Your task to perform on an android device: turn on wifi Image 0: 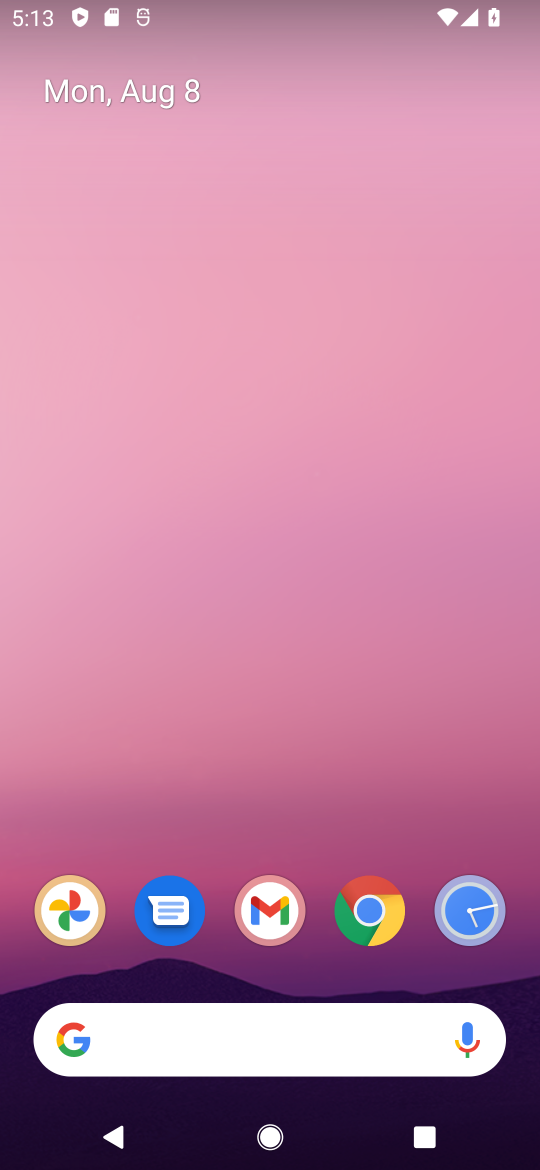
Step 0: drag from (230, 1049) to (307, 337)
Your task to perform on an android device: turn on wifi Image 1: 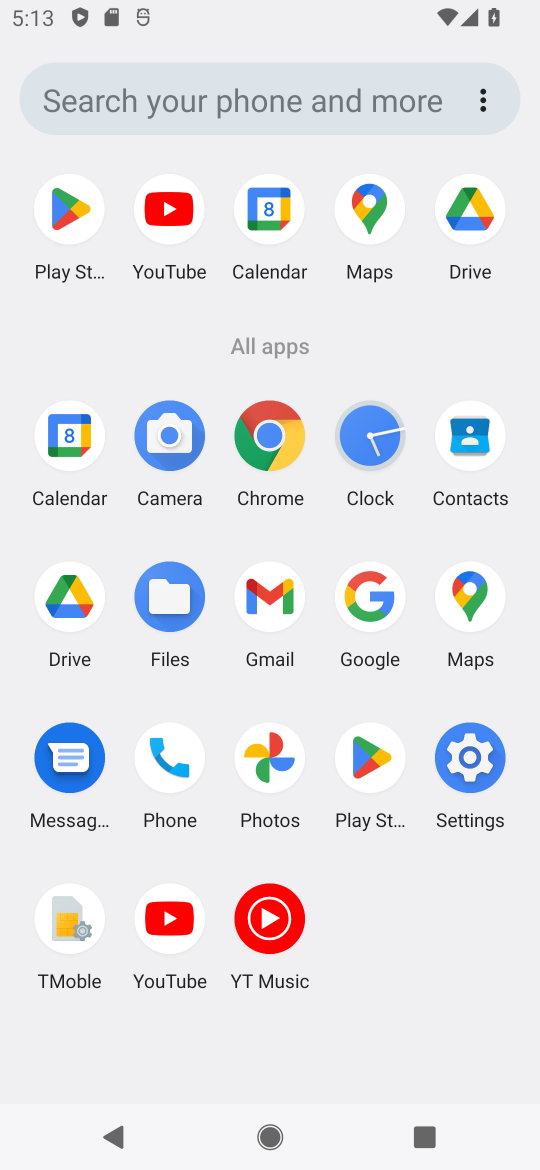
Step 1: click (467, 758)
Your task to perform on an android device: turn on wifi Image 2: 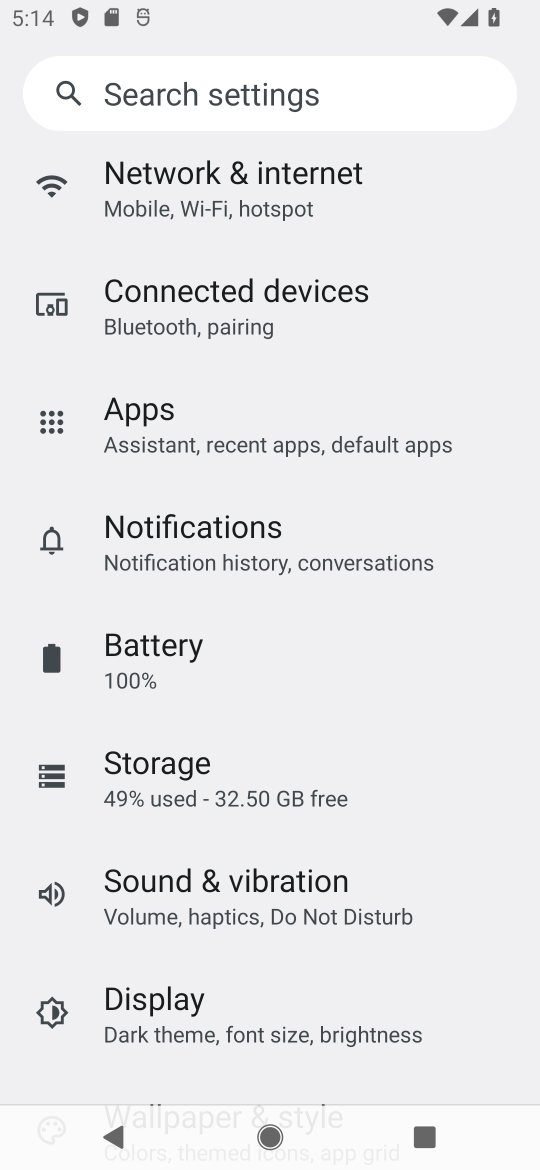
Step 2: click (207, 209)
Your task to perform on an android device: turn on wifi Image 3: 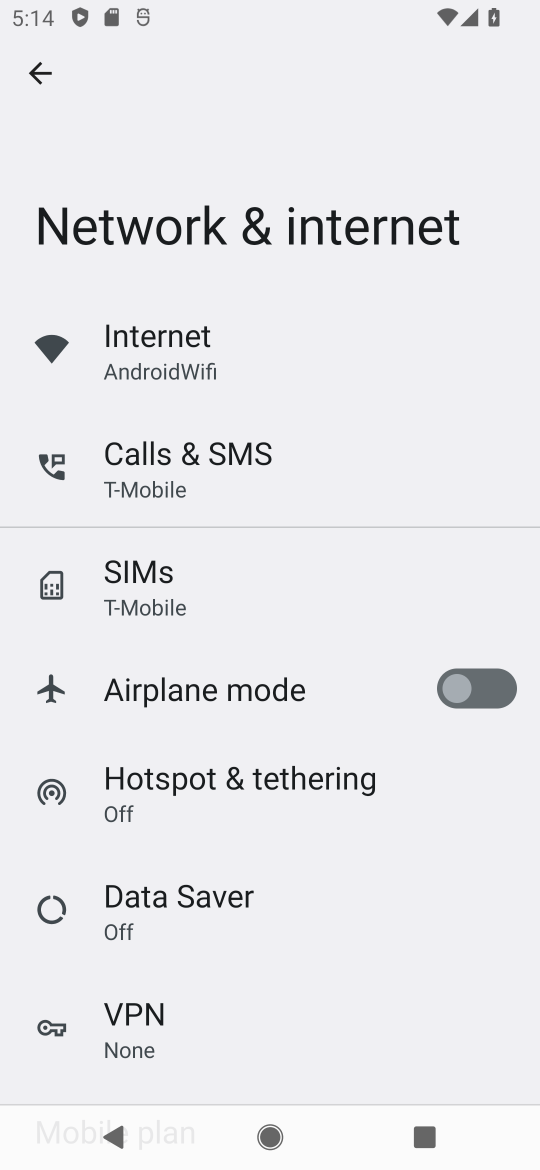
Step 3: click (184, 359)
Your task to perform on an android device: turn on wifi Image 4: 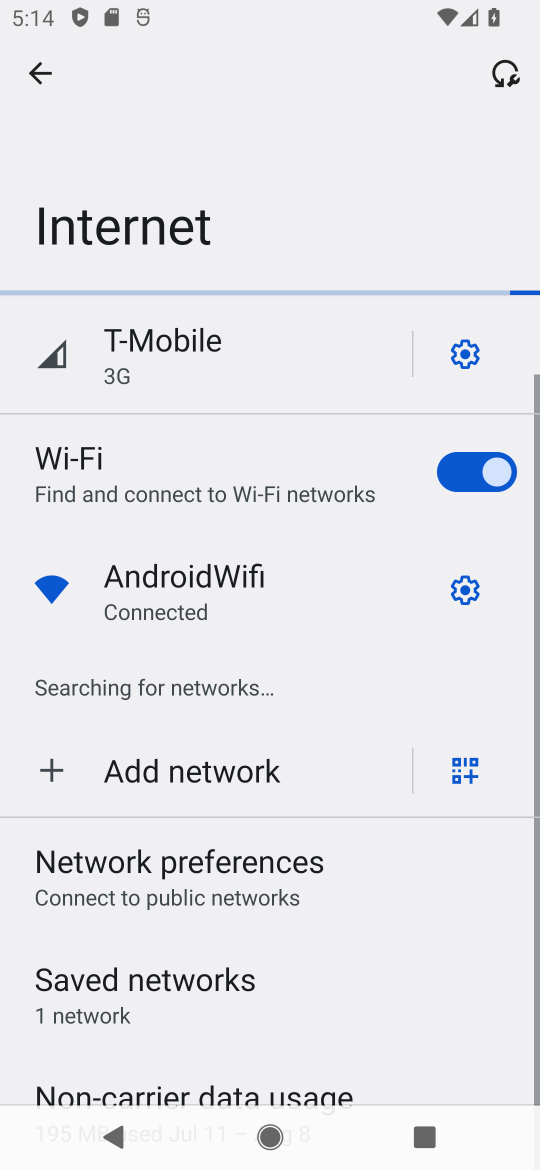
Step 4: task complete